Your task to perform on an android device: Go to CNN.com Image 0: 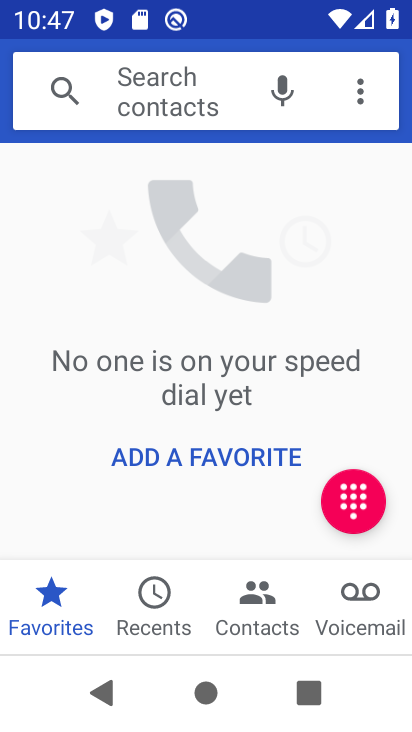
Step 0: press home button
Your task to perform on an android device: Go to CNN.com Image 1: 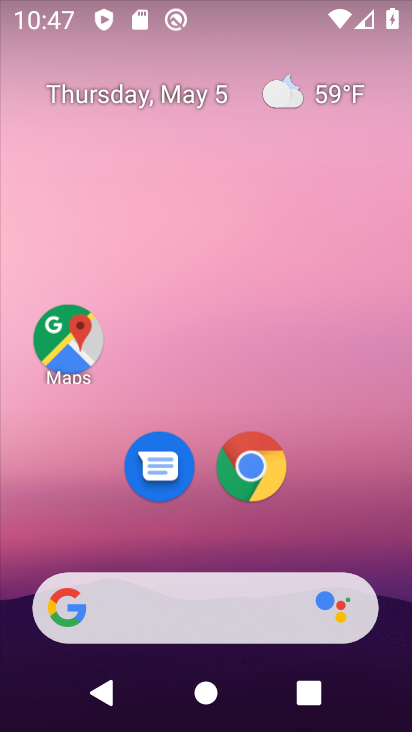
Step 1: click (248, 451)
Your task to perform on an android device: Go to CNN.com Image 2: 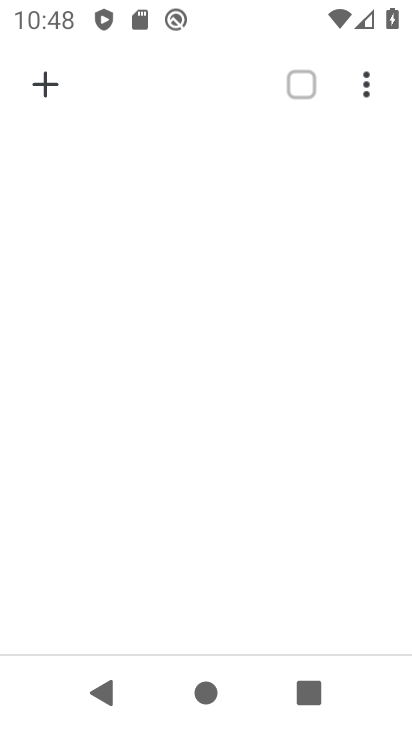
Step 2: click (54, 89)
Your task to perform on an android device: Go to CNN.com Image 3: 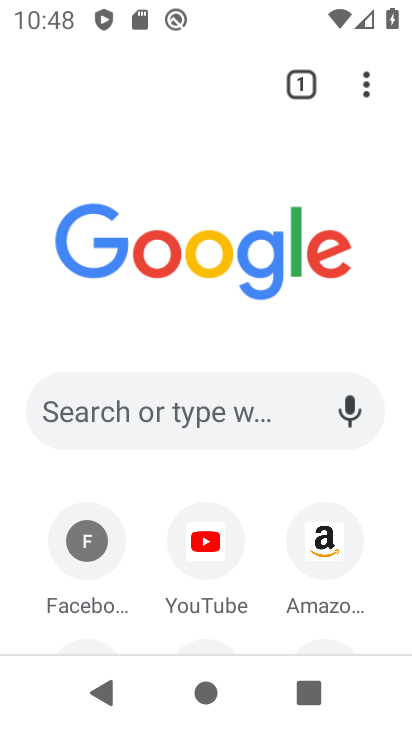
Step 3: drag from (177, 353) to (163, 167)
Your task to perform on an android device: Go to CNN.com Image 4: 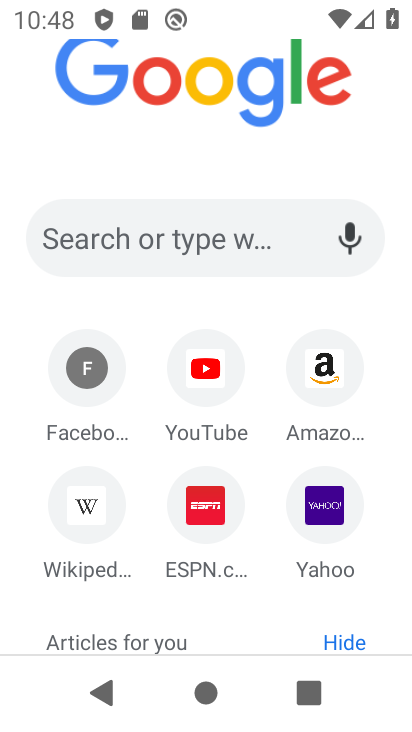
Step 4: click (179, 255)
Your task to perform on an android device: Go to CNN.com Image 5: 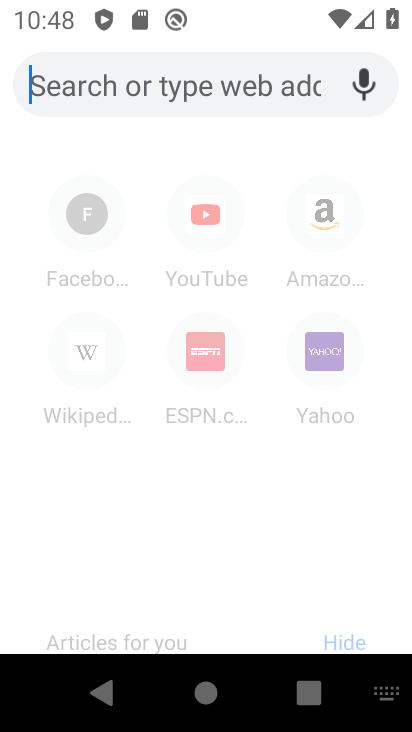
Step 5: type "cnn.com"
Your task to perform on an android device: Go to CNN.com Image 6: 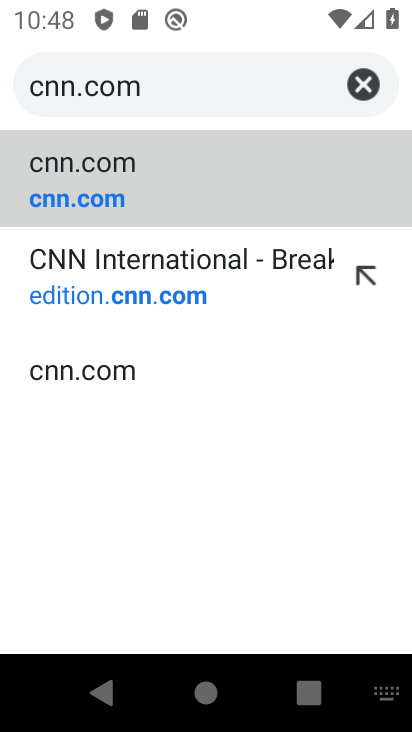
Step 6: click (236, 189)
Your task to perform on an android device: Go to CNN.com Image 7: 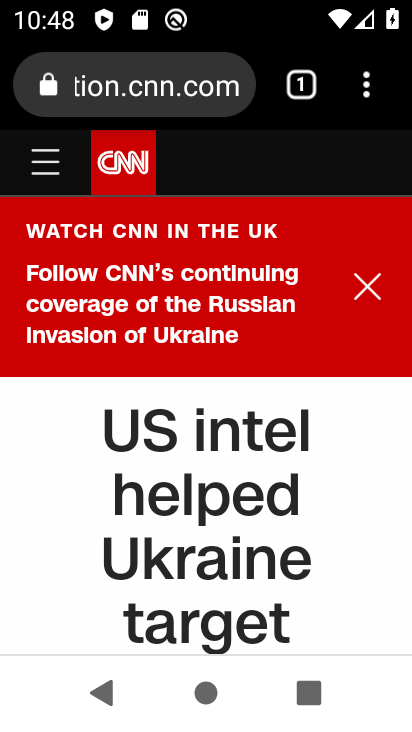
Step 7: task complete